Your task to perform on an android device: toggle notification dots Image 0: 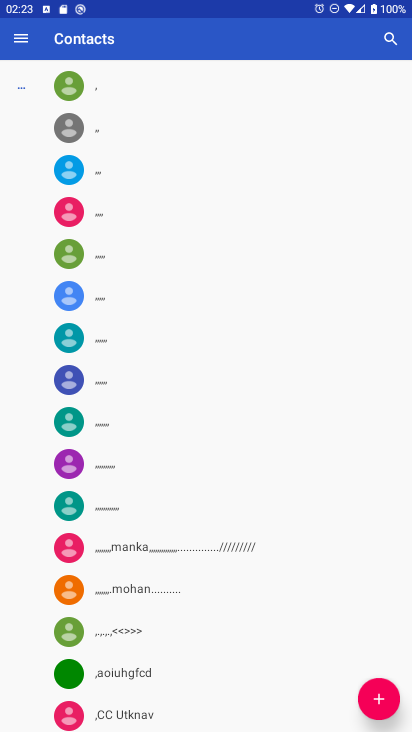
Step 0: press home button
Your task to perform on an android device: toggle notification dots Image 1: 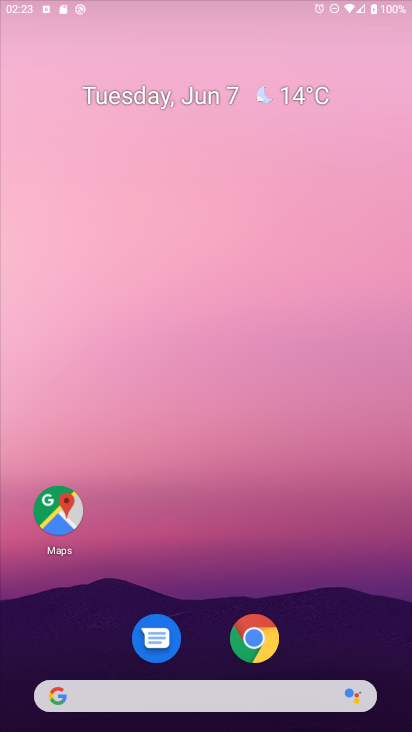
Step 1: drag from (280, 714) to (345, 176)
Your task to perform on an android device: toggle notification dots Image 2: 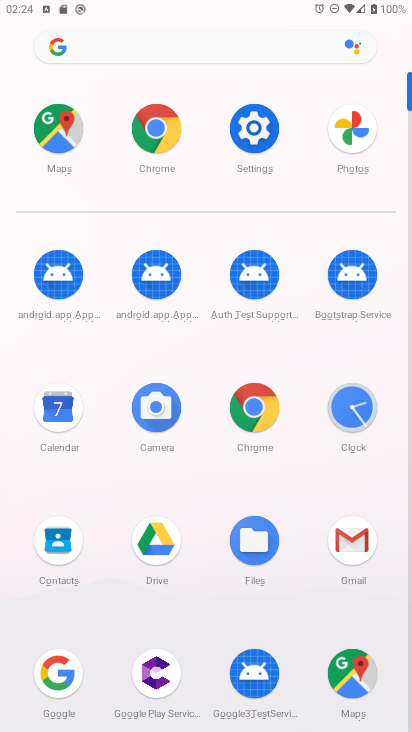
Step 2: click (270, 126)
Your task to perform on an android device: toggle notification dots Image 3: 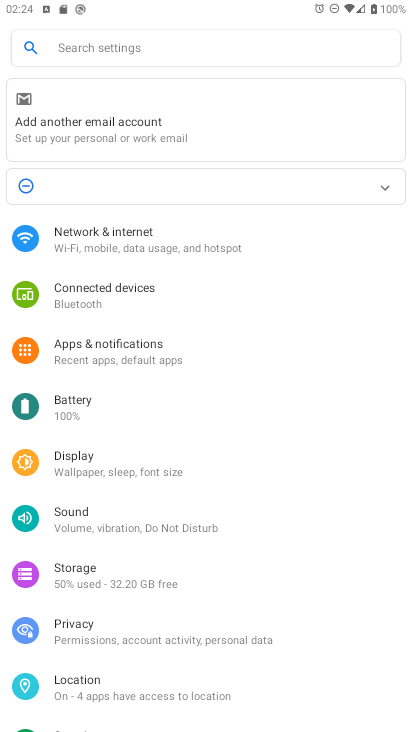
Step 3: click (120, 53)
Your task to perform on an android device: toggle notification dots Image 4: 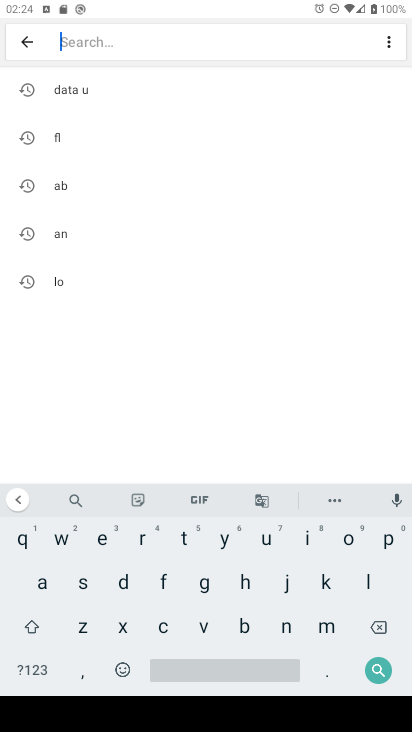
Step 4: click (119, 585)
Your task to perform on an android device: toggle notification dots Image 5: 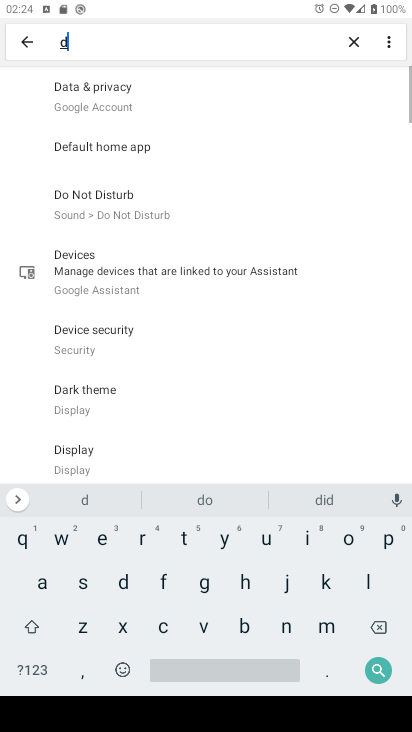
Step 5: click (352, 536)
Your task to perform on an android device: toggle notification dots Image 6: 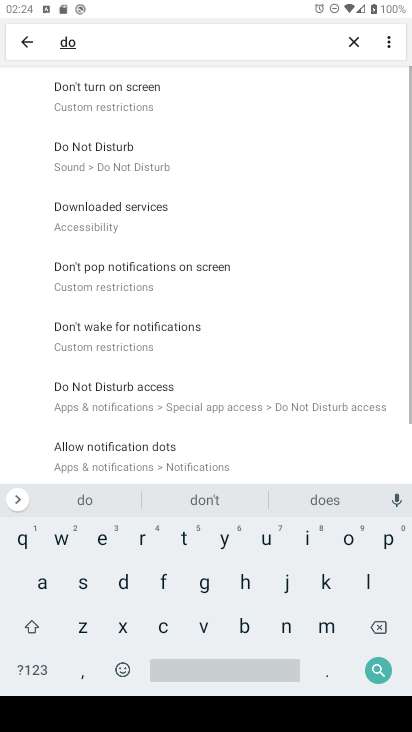
Step 6: click (181, 541)
Your task to perform on an android device: toggle notification dots Image 7: 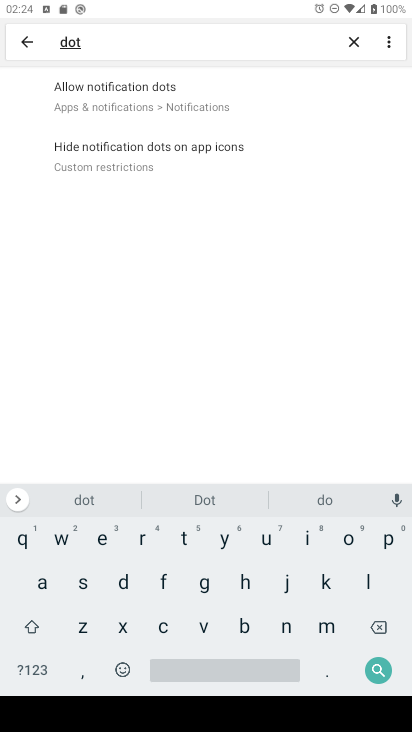
Step 7: click (134, 83)
Your task to perform on an android device: toggle notification dots Image 8: 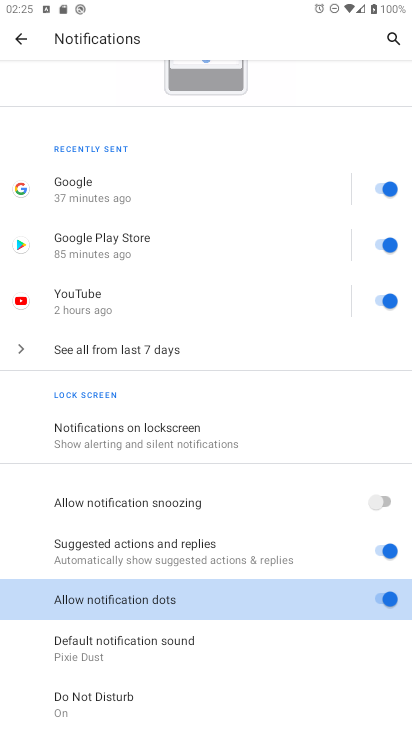
Step 8: task complete